Your task to perform on an android device: turn off smart reply in the gmail app Image 0: 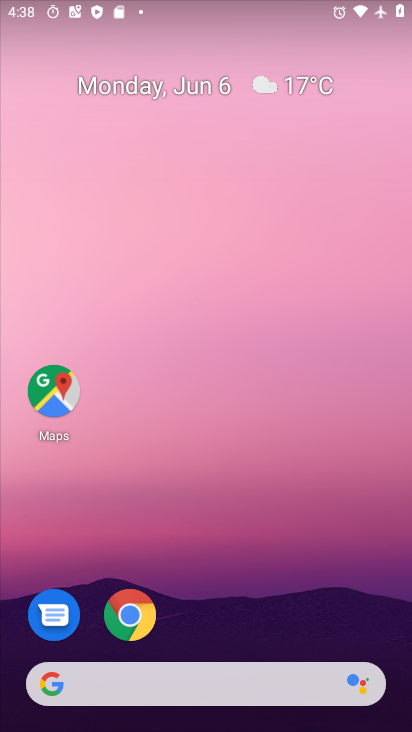
Step 0: drag from (228, 566) to (218, 34)
Your task to perform on an android device: turn off smart reply in the gmail app Image 1: 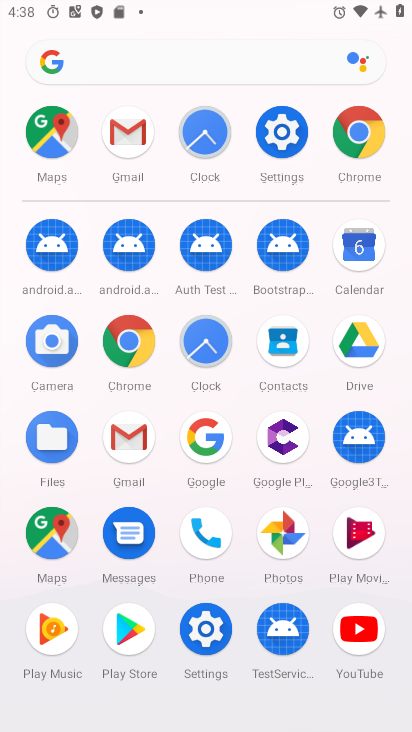
Step 1: drag from (13, 559) to (15, 253)
Your task to perform on an android device: turn off smart reply in the gmail app Image 2: 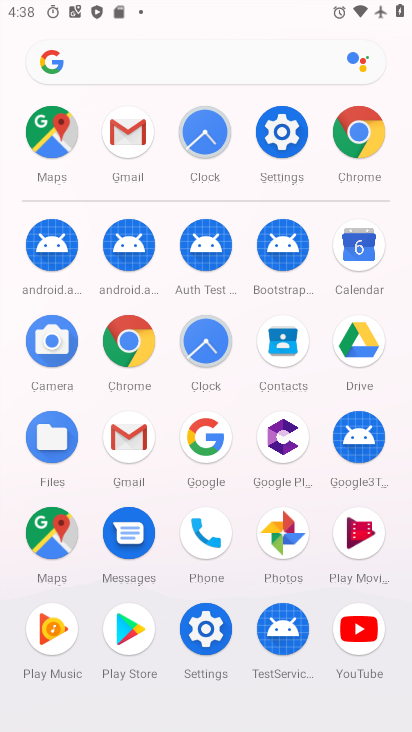
Step 2: click (125, 433)
Your task to perform on an android device: turn off smart reply in the gmail app Image 3: 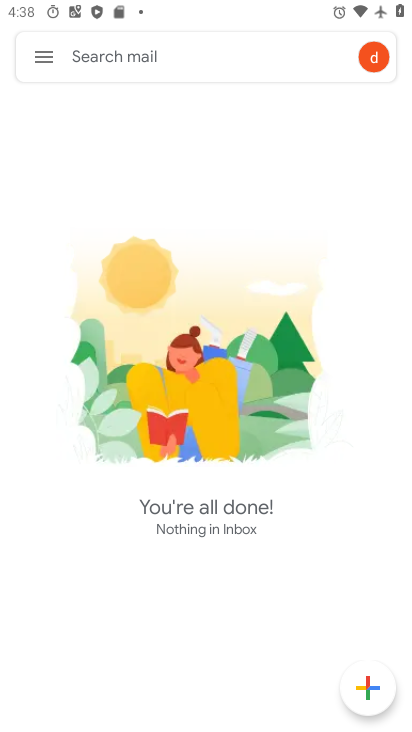
Step 3: click (44, 68)
Your task to perform on an android device: turn off smart reply in the gmail app Image 4: 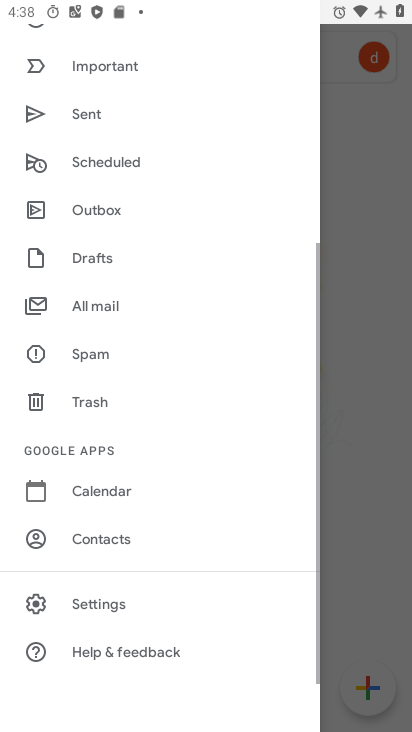
Step 4: drag from (194, 624) to (228, 202)
Your task to perform on an android device: turn off smart reply in the gmail app Image 5: 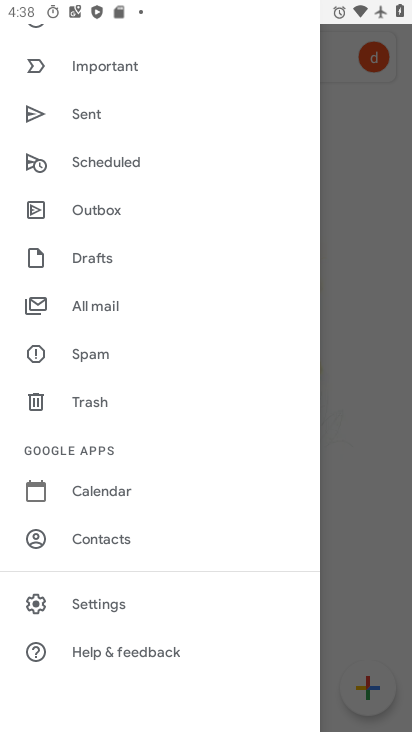
Step 5: click (125, 596)
Your task to perform on an android device: turn off smart reply in the gmail app Image 6: 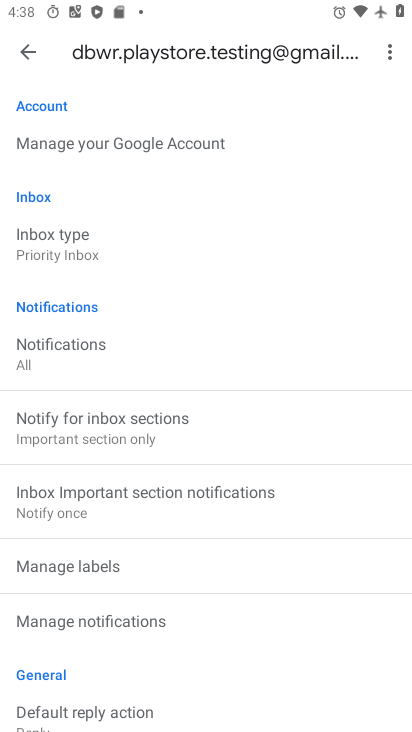
Step 6: drag from (221, 628) to (271, 216)
Your task to perform on an android device: turn off smart reply in the gmail app Image 7: 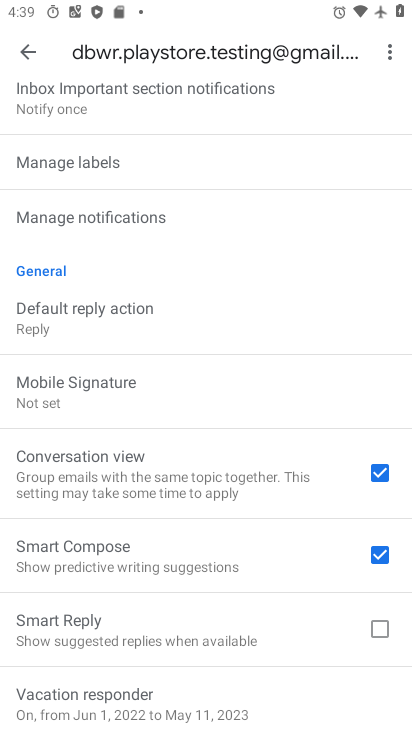
Step 7: drag from (179, 601) to (240, 222)
Your task to perform on an android device: turn off smart reply in the gmail app Image 8: 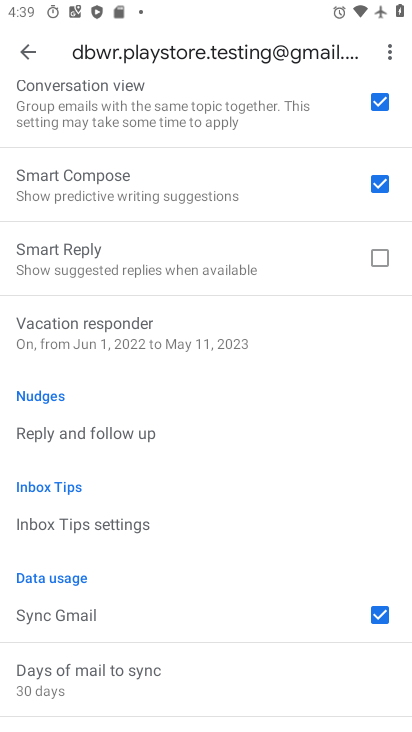
Step 8: drag from (304, 217) to (271, 459)
Your task to perform on an android device: turn off smart reply in the gmail app Image 9: 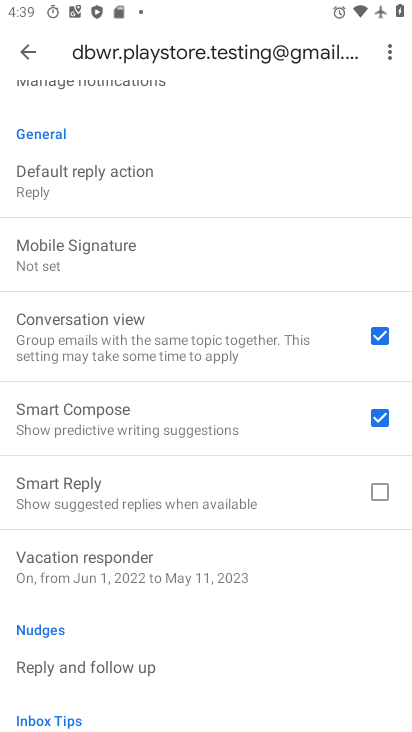
Step 9: drag from (204, 139) to (212, 583)
Your task to perform on an android device: turn off smart reply in the gmail app Image 10: 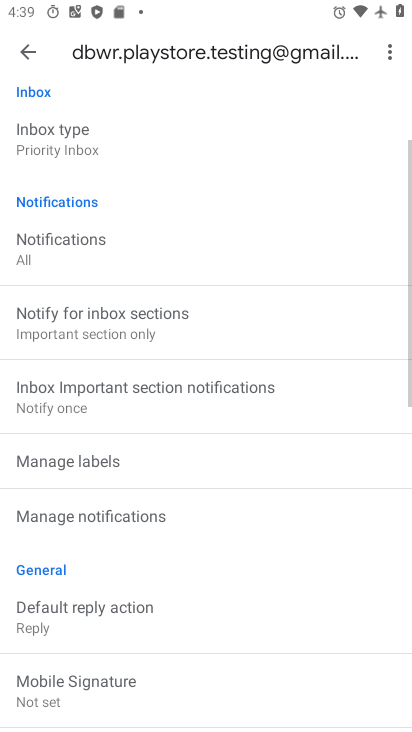
Step 10: drag from (222, 521) to (219, 610)
Your task to perform on an android device: turn off smart reply in the gmail app Image 11: 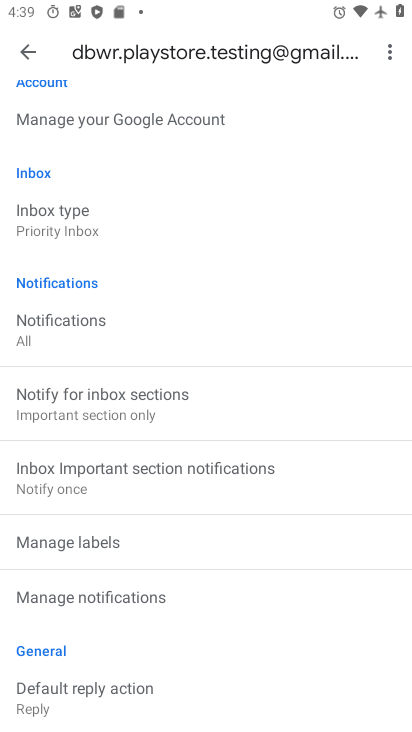
Step 11: drag from (201, 649) to (243, 302)
Your task to perform on an android device: turn off smart reply in the gmail app Image 12: 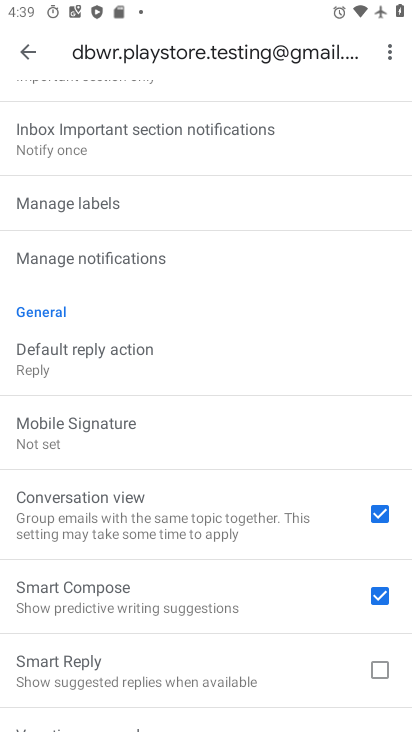
Step 12: drag from (214, 643) to (253, 338)
Your task to perform on an android device: turn off smart reply in the gmail app Image 13: 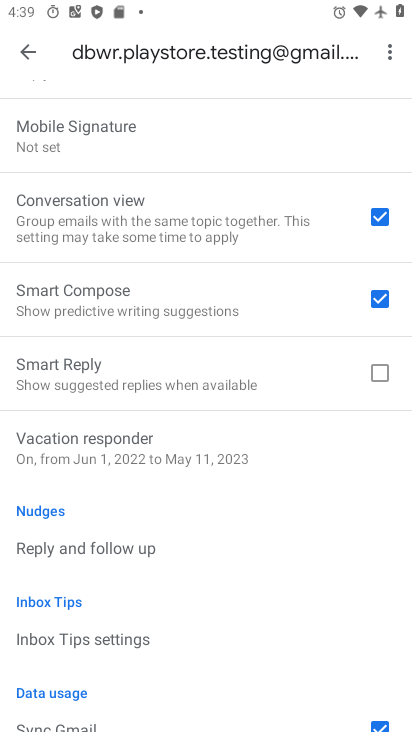
Step 13: click (371, 368)
Your task to perform on an android device: turn off smart reply in the gmail app Image 14: 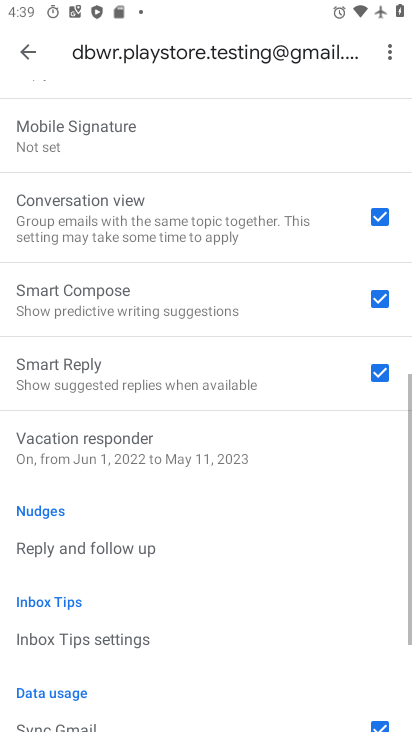
Step 14: click (371, 368)
Your task to perform on an android device: turn off smart reply in the gmail app Image 15: 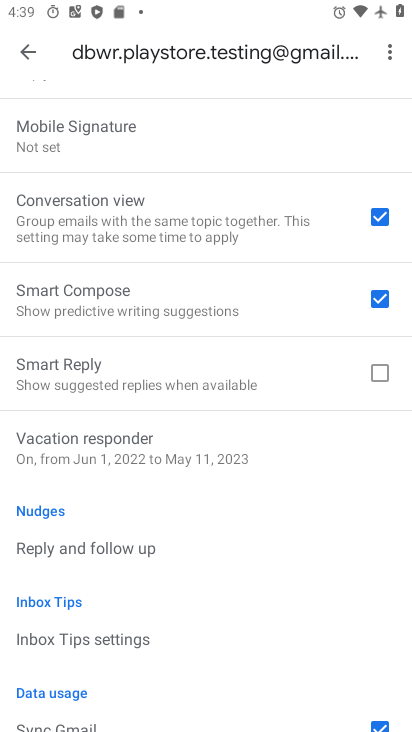
Step 15: task complete